Your task to perform on an android device: open chrome and create a bookmark for the current page Image 0: 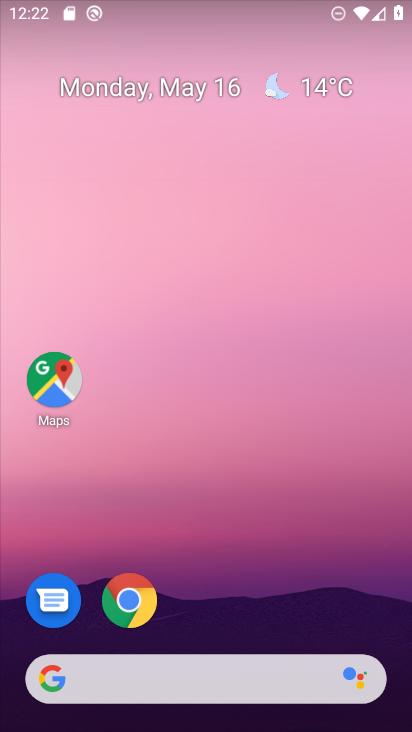
Step 0: press home button
Your task to perform on an android device: open chrome and create a bookmark for the current page Image 1: 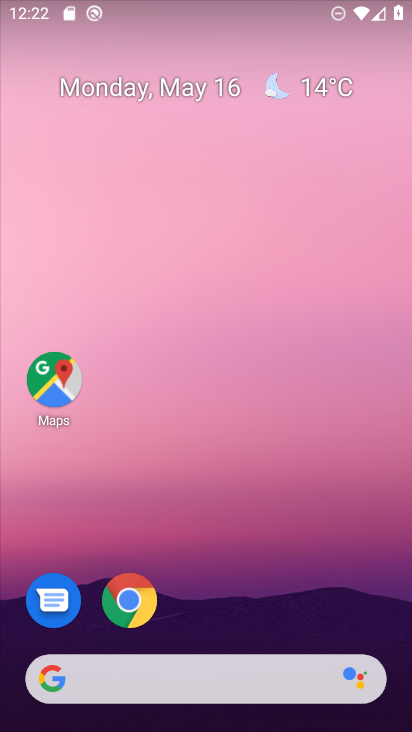
Step 1: task complete